Your task to perform on an android device: Show me popular games on the Play Store Image 0: 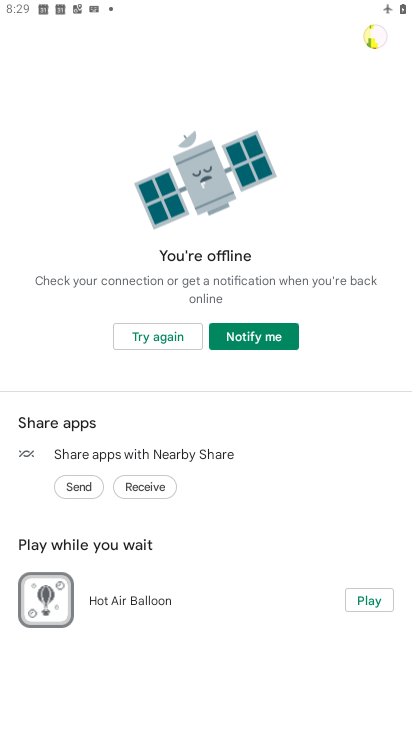
Step 0: drag from (180, 603) to (216, 172)
Your task to perform on an android device: Show me popular games on the Play Store Image 1: 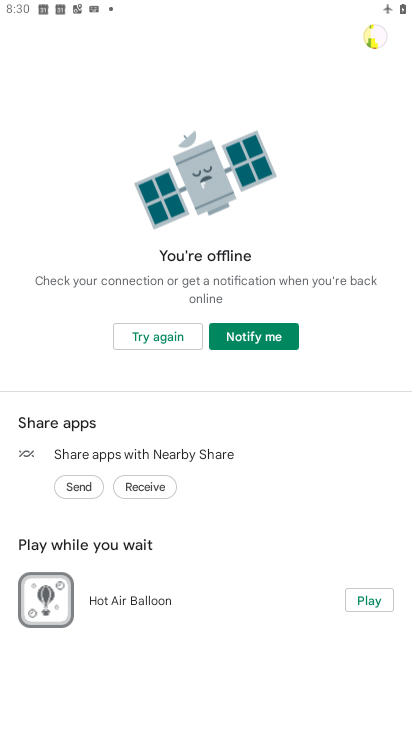
Step 1: drag from (216, 493) to (216, 117)
Your task to perform on an android device: Show me popular games on the Play Store Image 2: 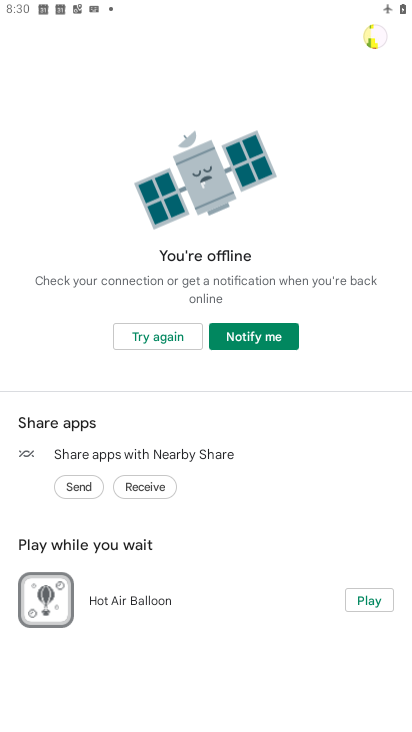
Step 2: drag from (188, 603) to (236, 400)
Your task to perform on an android device: Show me popular games on the Play Store Image 3: 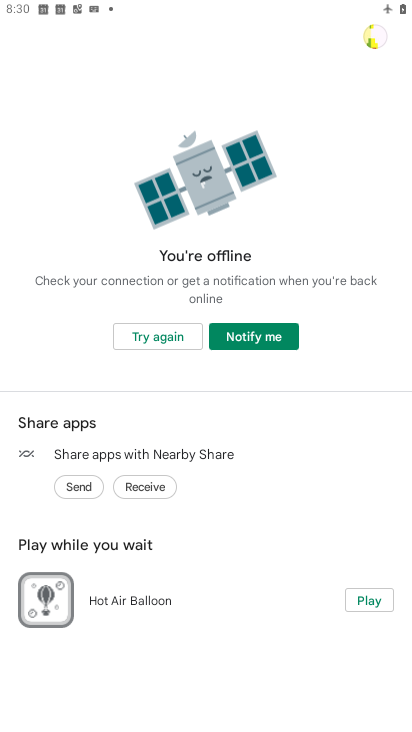
Step 3: drag from (180, 639) to (215, 337)
Your task to perform on an android device: Show me popular games on the Play Store Image 4: 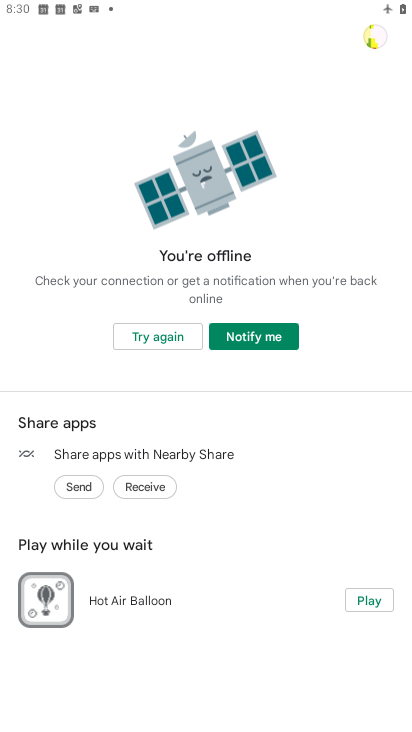
Step 4: drag from (181, 608) to (192, 433)
Your task to perform on an android device: Show me popular games on the Play Store Image 5: 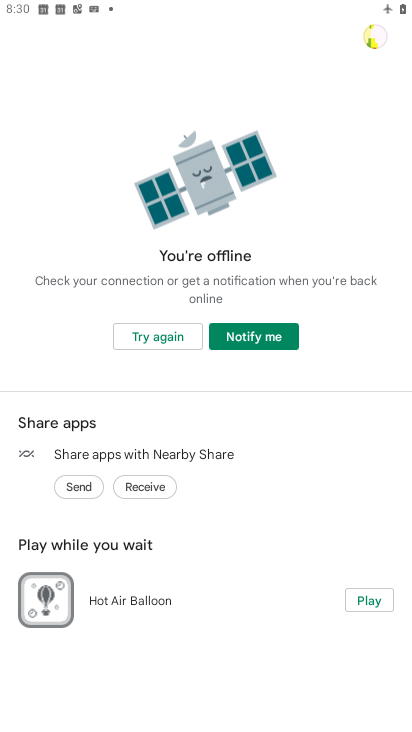
Step 5: drag from (186, 642) to (215, 387)
Your task to perform on an android device: Show me popular games on the Play Store Image 6: 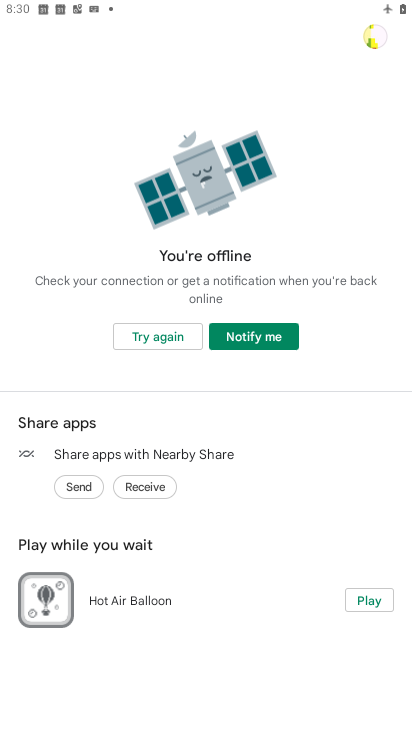
Step 6: drag from (173, 655) to (211, 270)
Your task to perform on an android device: Show me popular games on the Play Store Image 7: 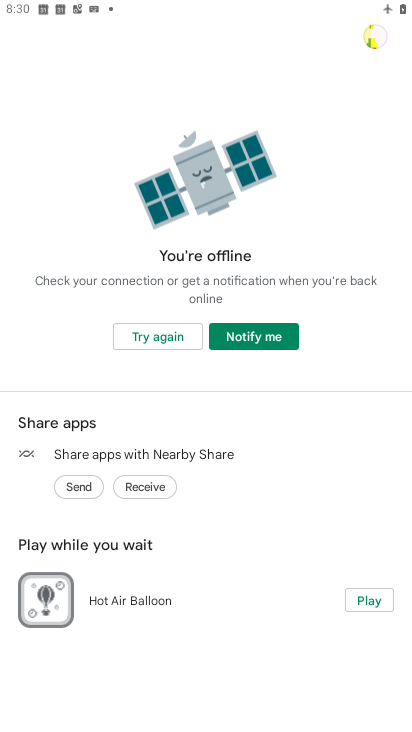
Step 7: click (381, 26)
Your task to perform on an android device: Show me popular games on the Play Store Image 8: 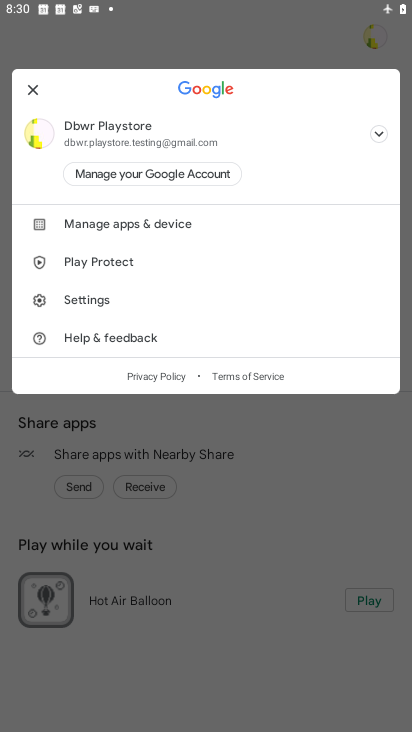
Step 8: click (123, 221)
Your task to perform on an android device: Show me popular games on the Play Store Image 9: 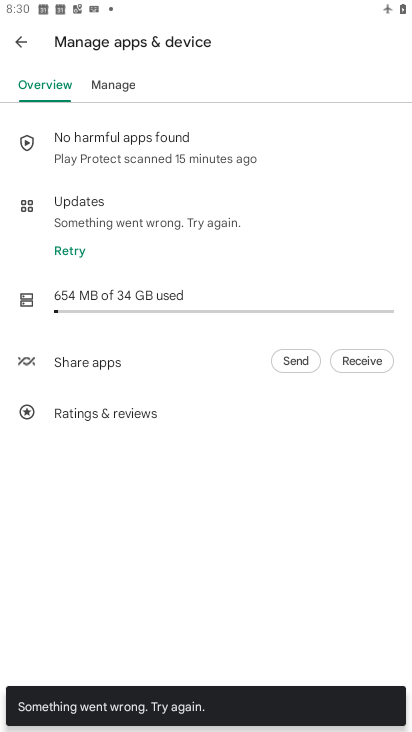
Step 9: click (142, 206)
Your task to perform on an android device: Show me popular games on the Play Store Image 10: 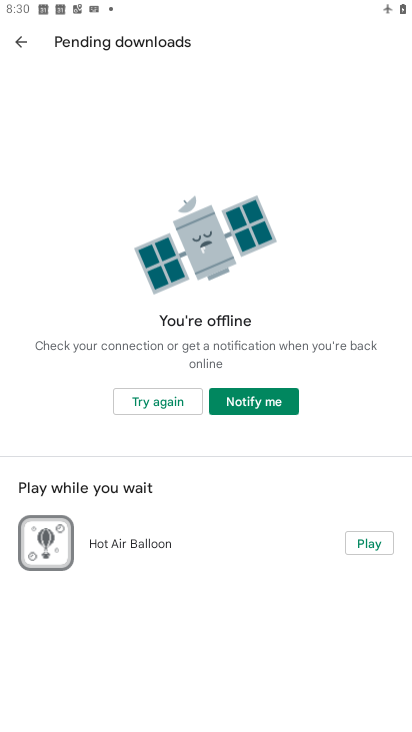
Step 10: click (23, 32)
Your task to perform on an android device: Show me popular games on the Play Store Image 11: 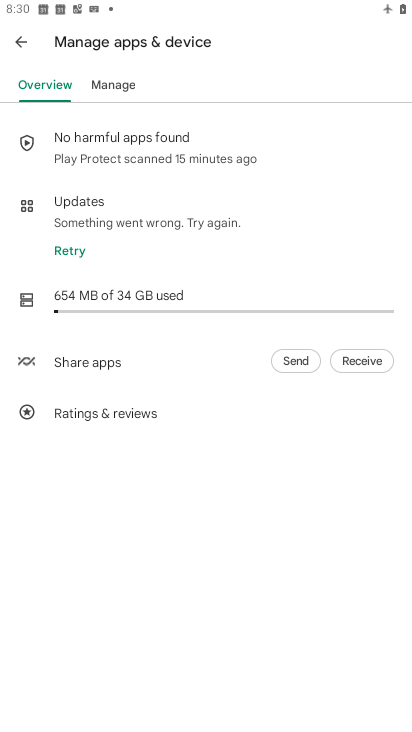
Step 11: drag from (211, 445) to (244, 124)
Your task to perform on an android device: Show me popular games on the Play Store Image 12: 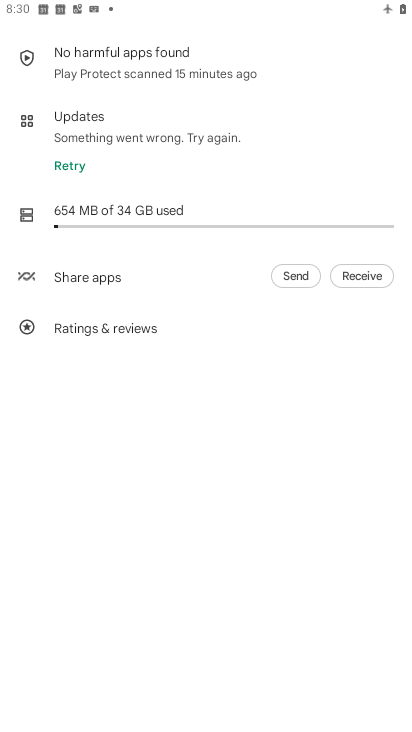
Step 12: drag from (164, 96) to (278, 457)
Your task to perform on an android device: Show me popular games on the Play Store Image 13: 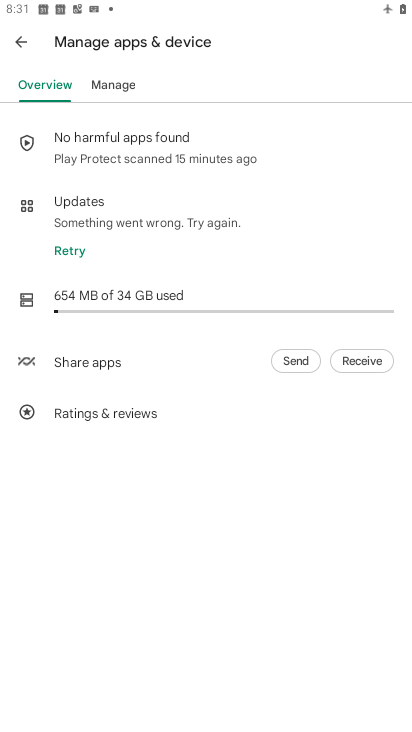
Step 13: click (19, 43)
Your task to perform on an android device: Show me popular games on the Play Store Image 14: 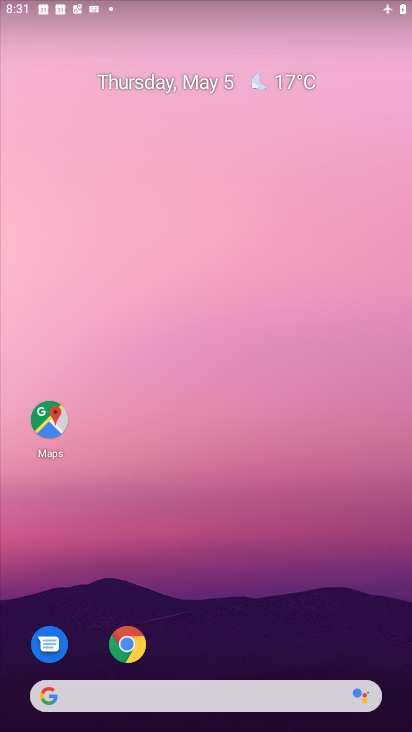
Step 14: drag from (234, 613) to (234, 204)
Your task to perform on an android device: Show me popular games on the Play Store Image 15: 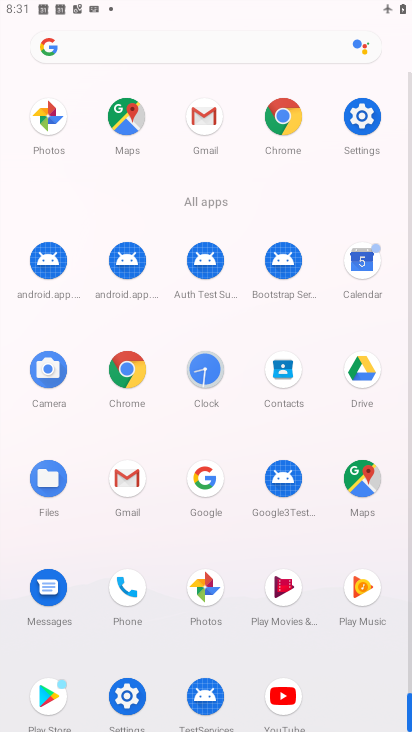
Step 15: drag from (190, 555) to (229, 204)
Your task to perform on an android device: Show me popular games on the Play Store Image 16: 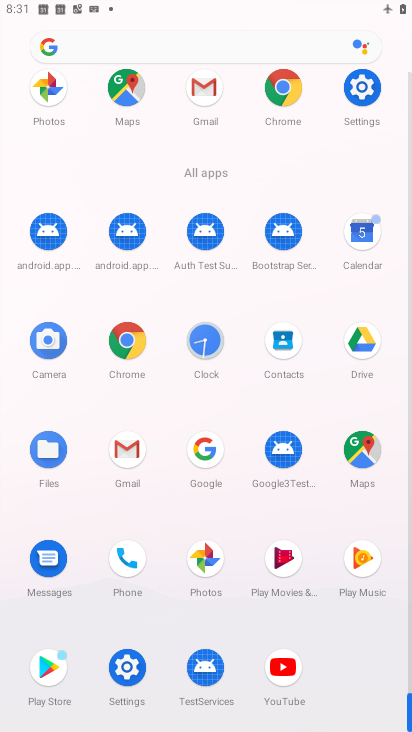
Step 16: click (37, 667)
Your task to perform on an android device: Show me popular games on the Play Store Image 17: 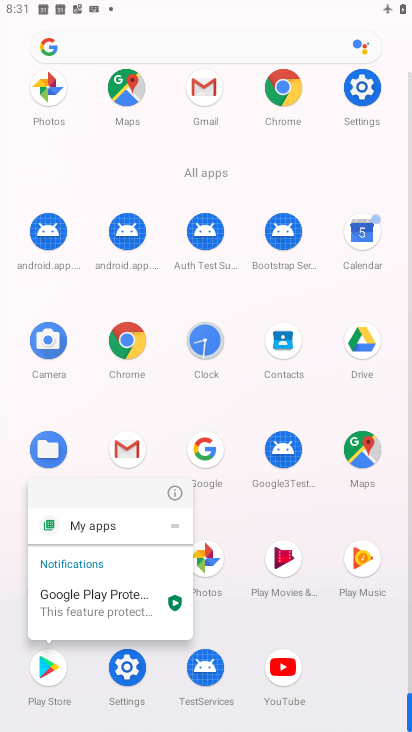
Step 17: click (180, 499)
Your task to perform on an android device: Show me popular games on the Play Store Image 18: 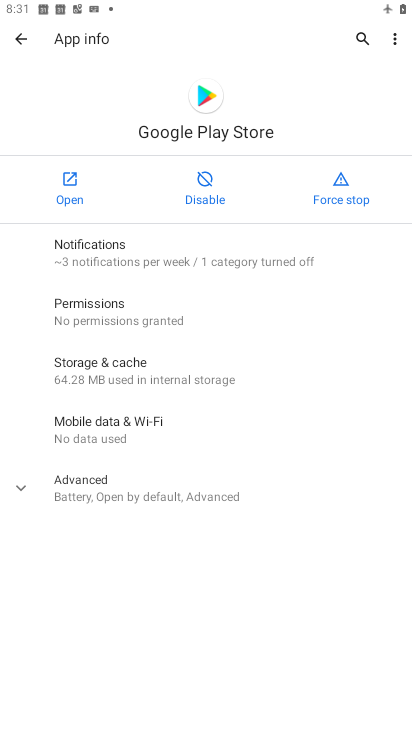
Step 18: click (80, 189)
Your task to perform on an android device: Show me popular games on the Play Store Image 19: 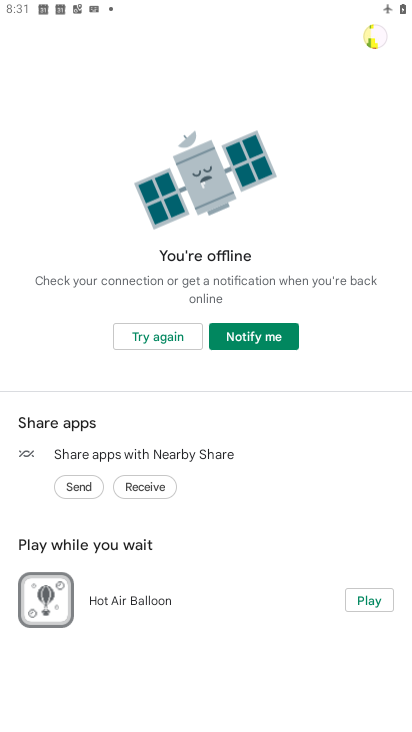
Step 19: click (374, 39)
Your task to perform on an android device: Show me popular games on the Play Store Image 20: 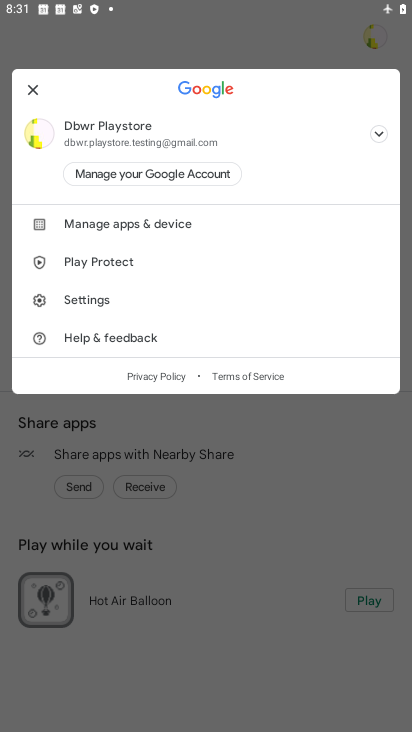
Step 20: click (72, 298)
Your task to perform on an android device: Show me popular games on the Play Store Image 21: 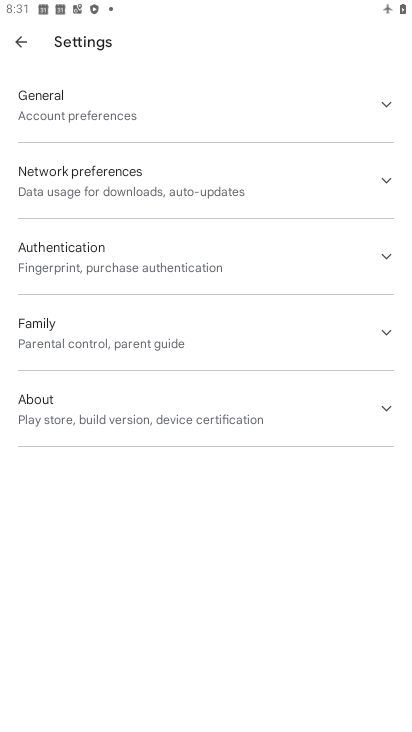
Step 21: click (18, 39)
Your task to perform on an android device: Show me popular games on the Play Store Image 22: 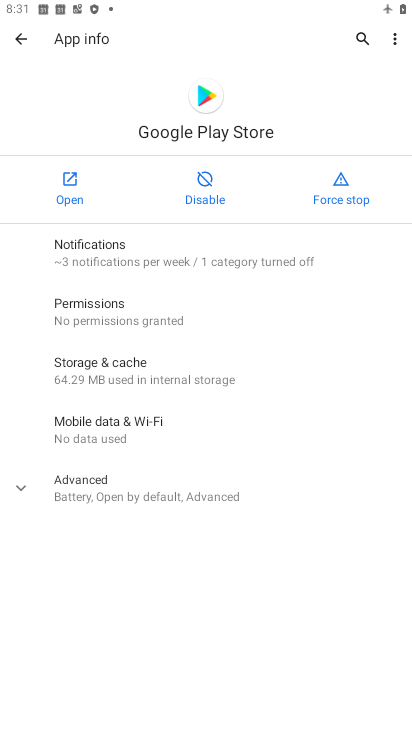
Step 22: click (56, 182)
Your task to perform on an android device: Show me popular games on the Play Store Image 23: 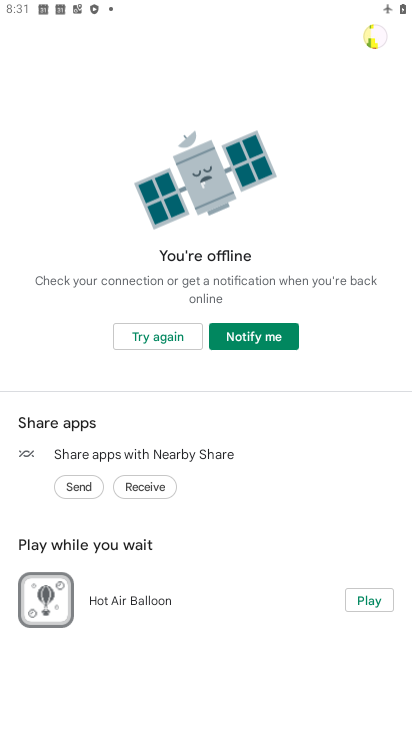
Step 23: task complete